Your task to perform on an android device: clear history in the chrome app Image 0: 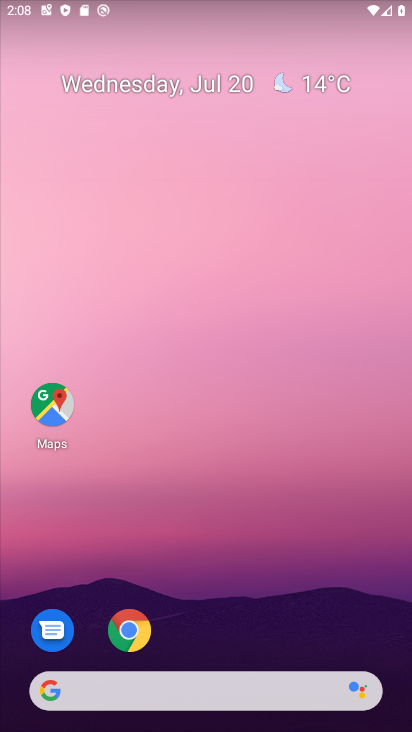
Step 0: click (125, 626)
Your task to perform on an android device: clear history in the chrome app Image 1: 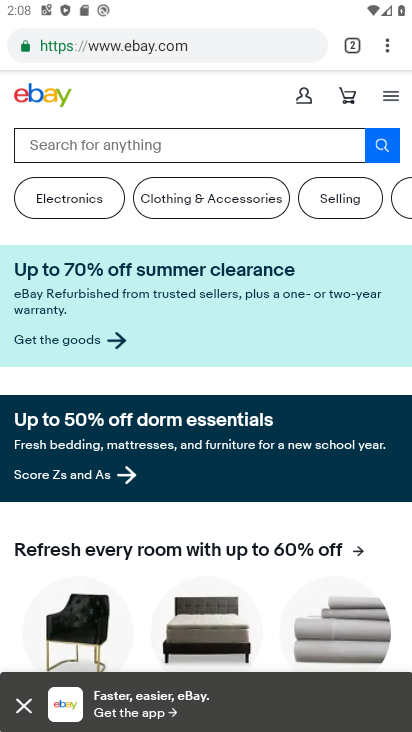
Step 1: click (393, 51)
Your task to perform on an android device: clear history in the chrome app Image 2: 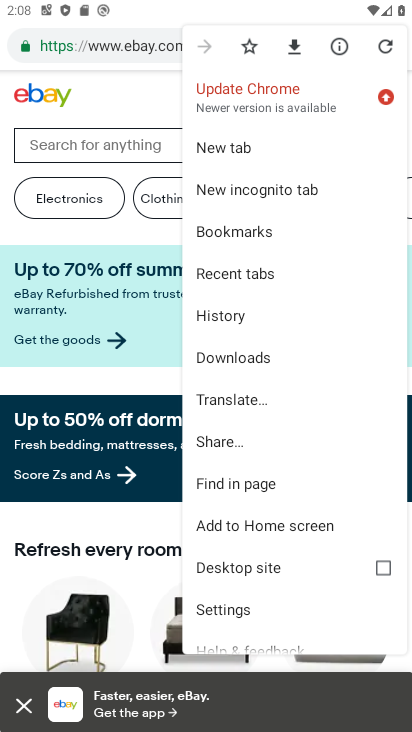
Step 2: click (241, 320)
Your task to perform on an android device: clear history in the chrome app Image 3: 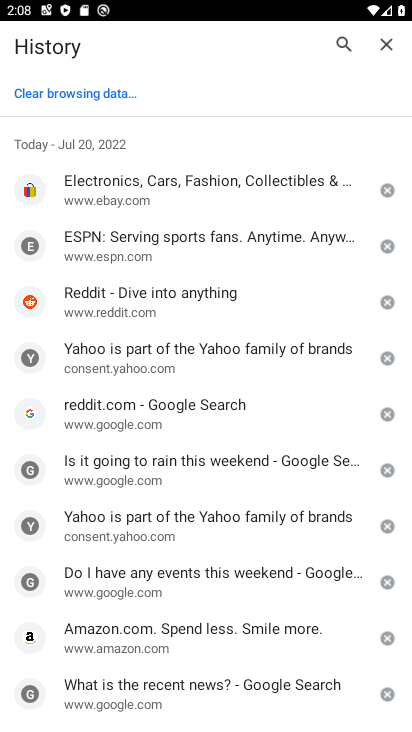
Step 3: click (107, 92)
Your task to perform on an android device: clear history in the chrome app Image 4: 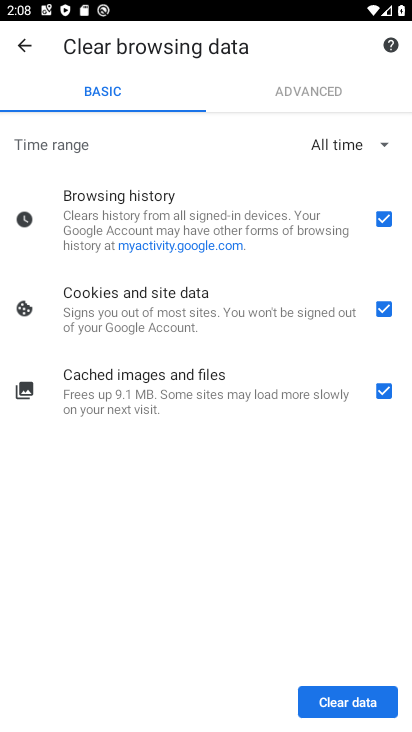
Step 4: click (346, 714)
Your task to perform on an android device: clear history in the chrome app Image 5: 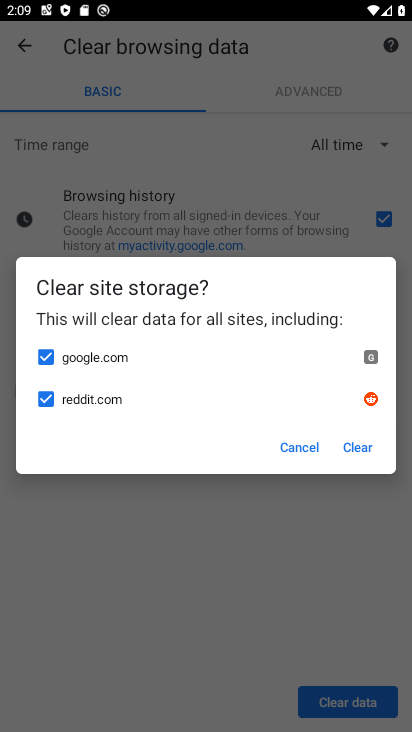
Step 5: click (367, 439)
Your task to perform on an android device: clear history in the chrome app Image 6: 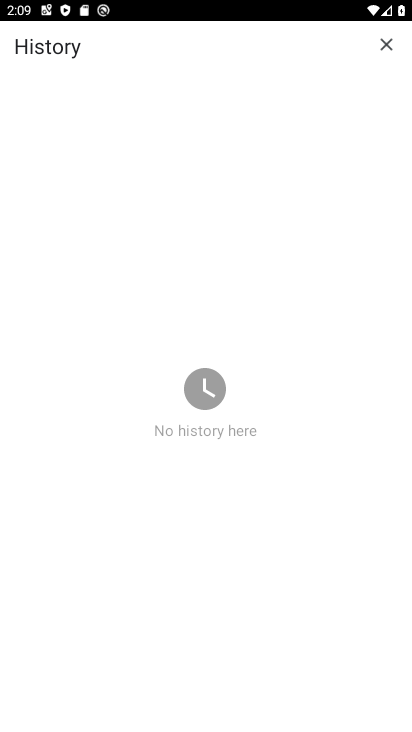
Step 6: task complete